Your task to perform on an android device: Open Maps and search for coffee Image 0: 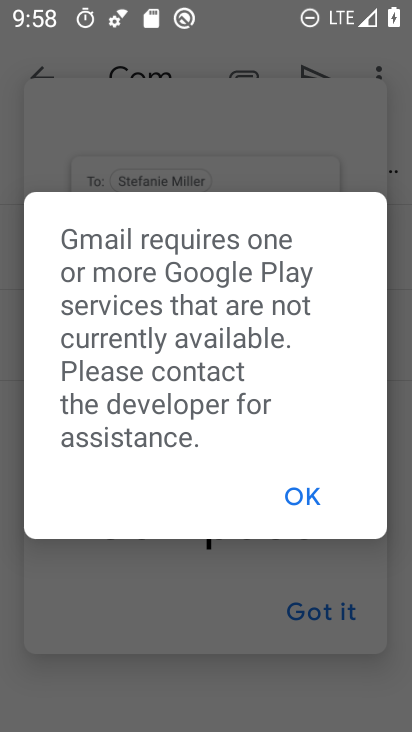
Step 0: press home button
Your task to perform on an android device: Open Maps and search for coffee Image 1: 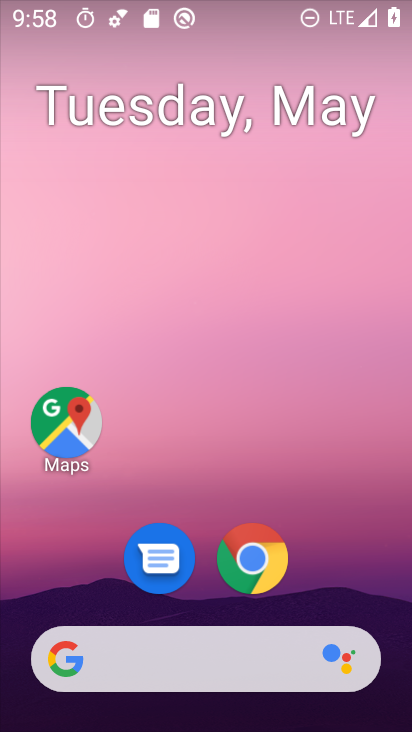
Step 1: drag from (389, 641) to (326, 86)
Your task to perform on an android device: Open Maps and search for coffee Image 2: 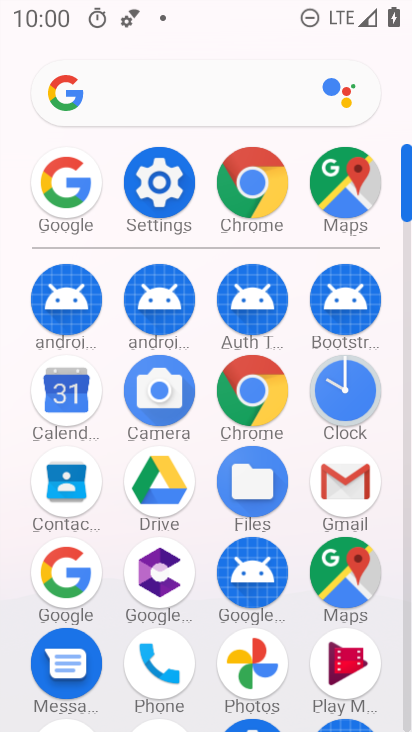
Step 2: click (329, 564)
Your task to perform on an android device: Open Maps and search for coffee Image 3: 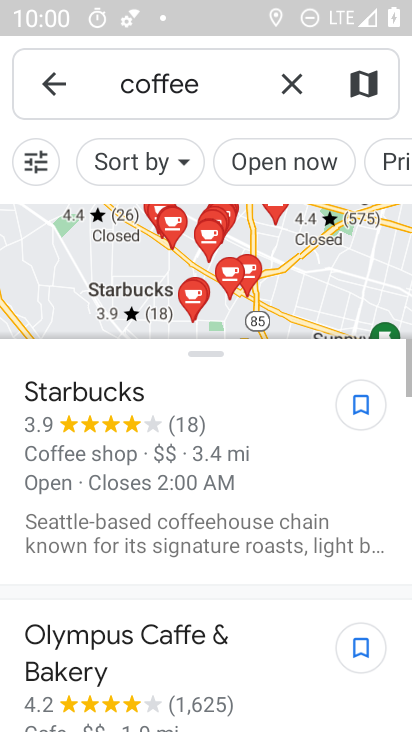
Step 3: click (289, 80)
Your task to perform on an android device: Open Maps and search for coffee Image 4: 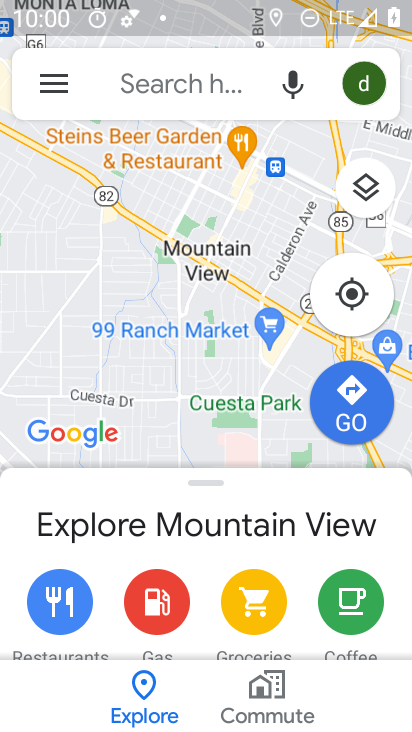
Step 4: task complete